Your task to perform on an android device: open a bookmark in the chrome app Image 0: 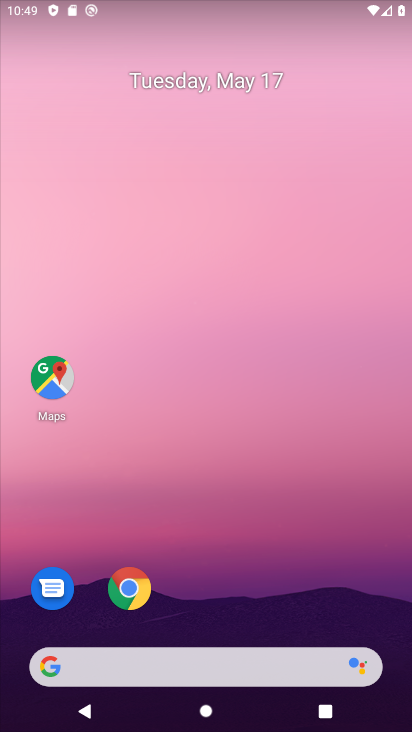
Step 0: click (139, 591)
Your task to perform on an android device: open a bookmark in the chrome app Image 1: 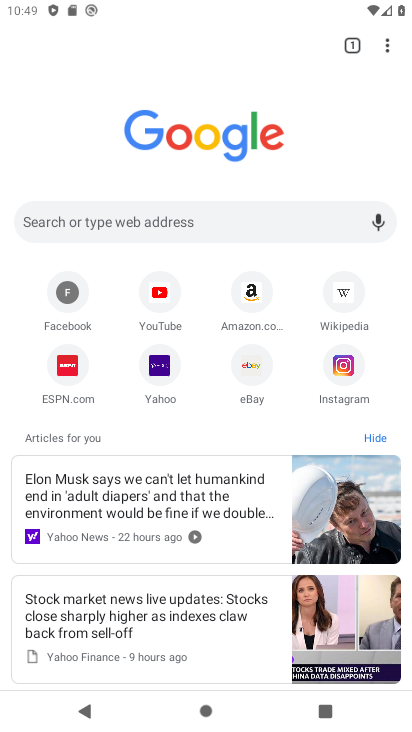
Step 1: click (387, 54)
Your task to perform on an android device: open a bookmark in the chrome app Image 2: 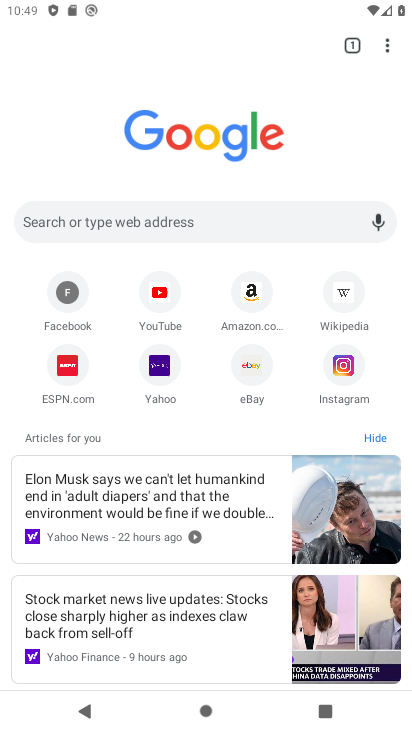
Step 2: task complete